Your task to perform on an android device: Open the phone app and click the voicemail tab. Image 0: 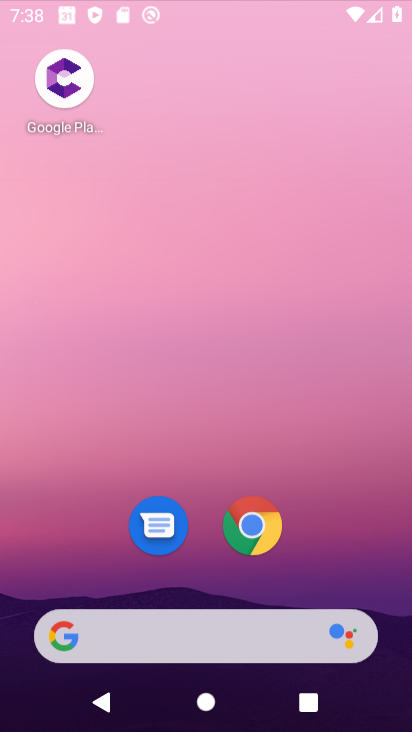
Step 0: click (219, 131)
Your task to perform on an android device: Open the phone app and click the voicemail tab. Image 1: 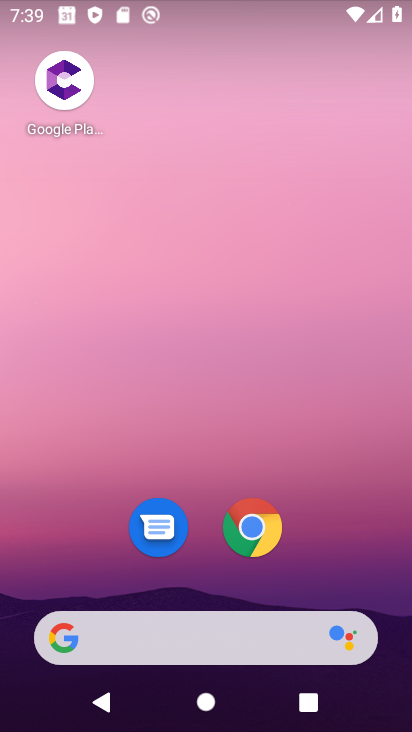
Step 1: drag from (254, 656) to (228, 118)
Your task to perform on an android device: Open the phone app and click the voicemail tab. Image 2: 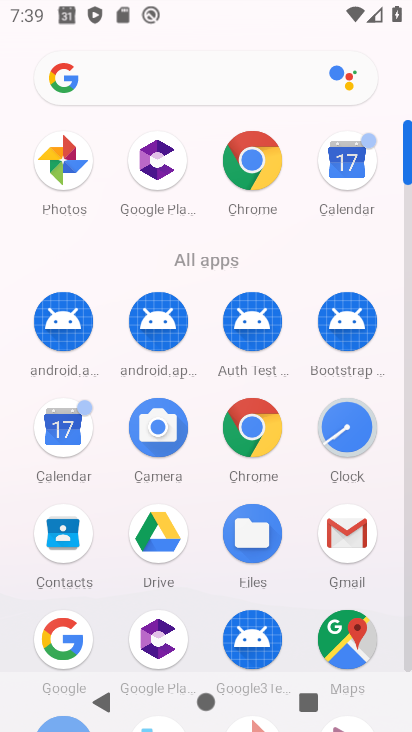
Step 2: drag from (109, 512) to (125, 286)
Your task to perform on an android device: Open the phone app and click the voicemail tab. Image 3: 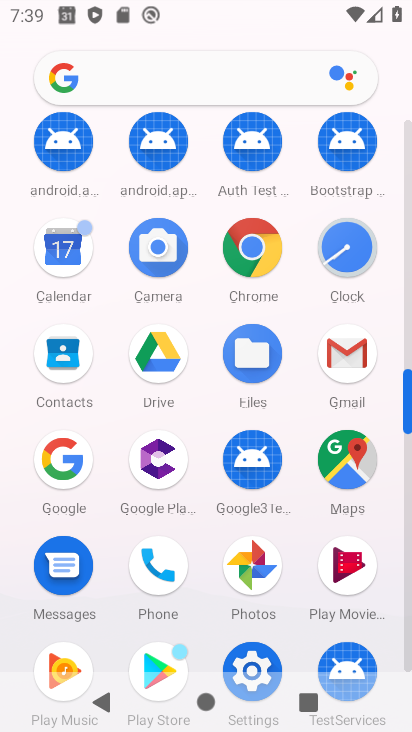
Step 3: click (141, 557)
Your task to perform on an android device: Open the phone app and click the voicemail tab. Image 4: 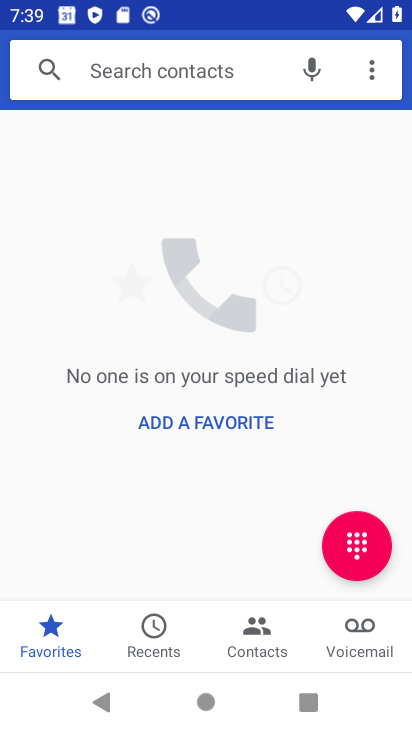
Step 4: click (329, 650)
Your task to perform on an android device: Open the phone app and click the voicemail tab. Image 5: 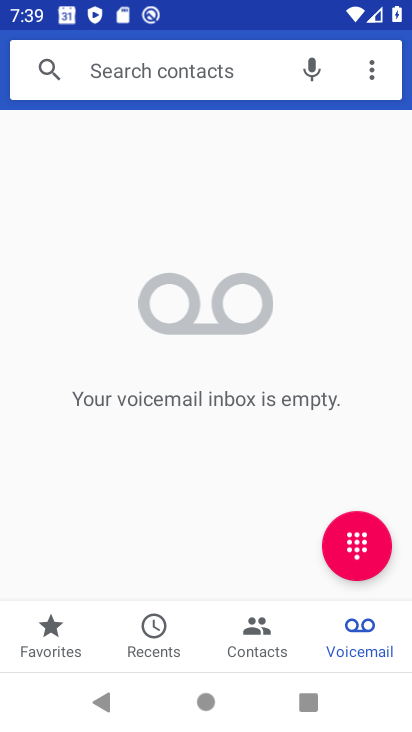
Step 5: task complete